Your task to perform on an android device: Do I have any events today? Image 0: 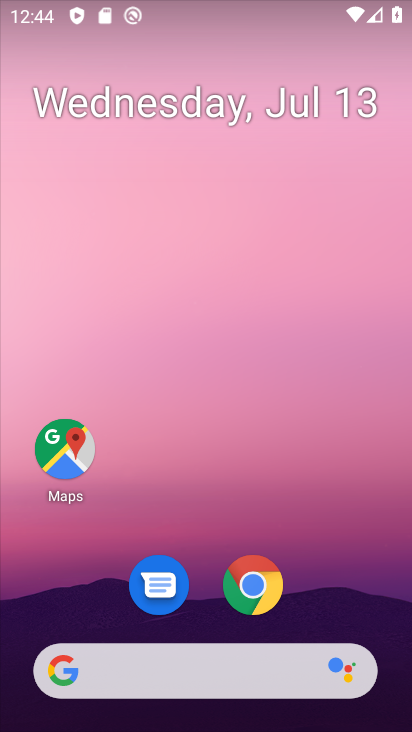
Step 0: drag from (256, 512) to (256, 1)
Your task to perform on an android device: Do I have any events today? Image 1: 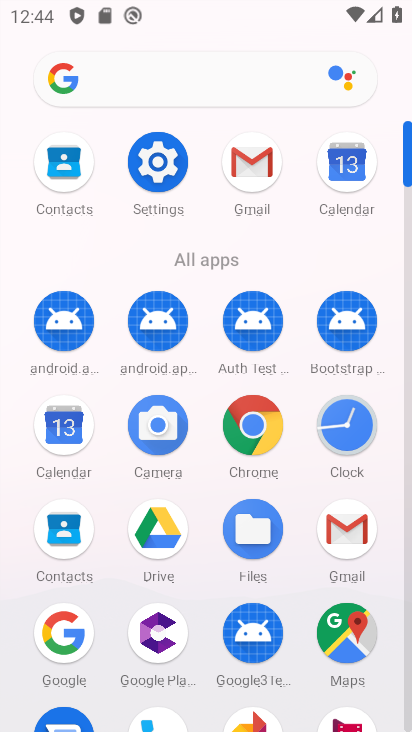
Step 1: click (69, 419)
Your task to perform on an android device: Do I have any events today? Image 2: 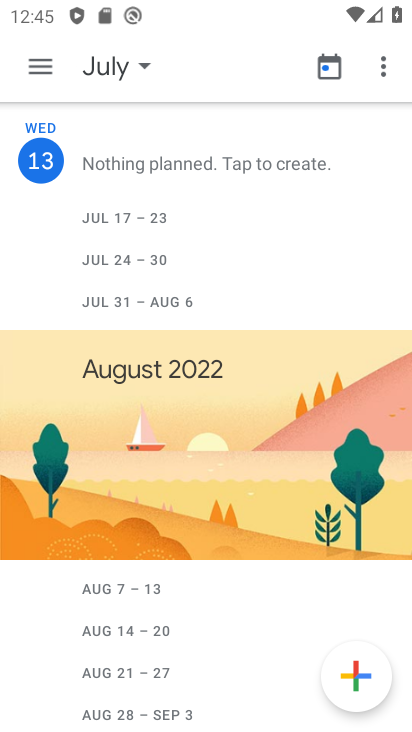
Step 2: click (42, 65)
Your task to perform on an android device: Do I have any events today? Image 3: 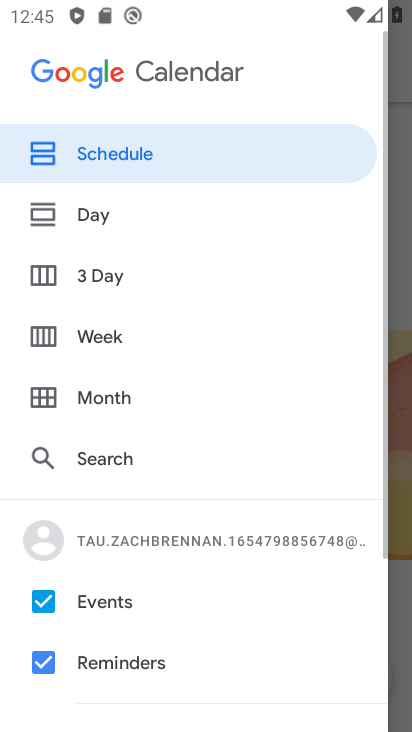
Step 3: click (90, 147)
Your task to perform on an android device: Do I have any events today? Image 4: 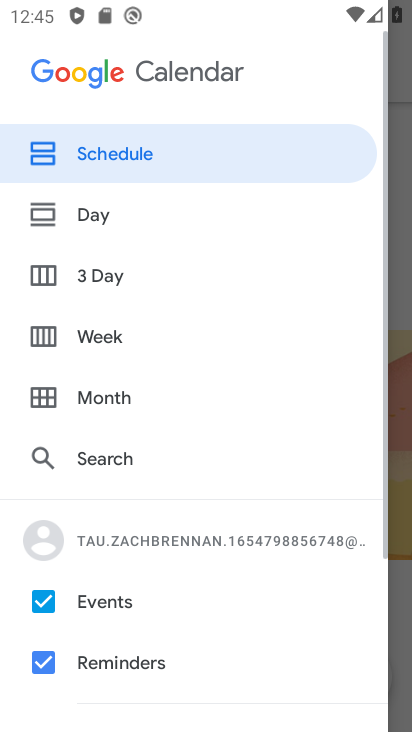
Step 4: click (90, 147)
Your task to perform on an android device: Do I have any events today? Image 5: 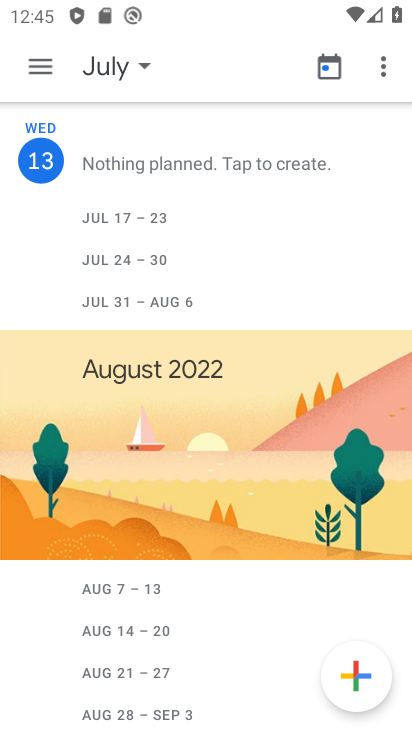
Step 5: task complete